Your task to perform on an android device: Open Google Maps and go to "Timeline" Image 0: 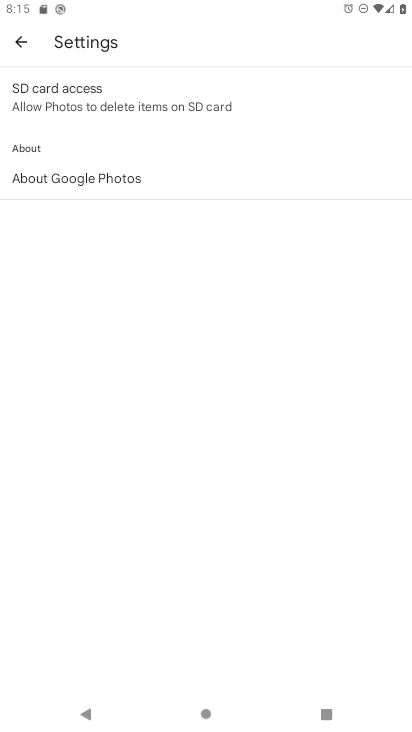
Step 0: press home button
Your task to perform on an android device: Open Google Maps and go to "Timeline" Image 1: 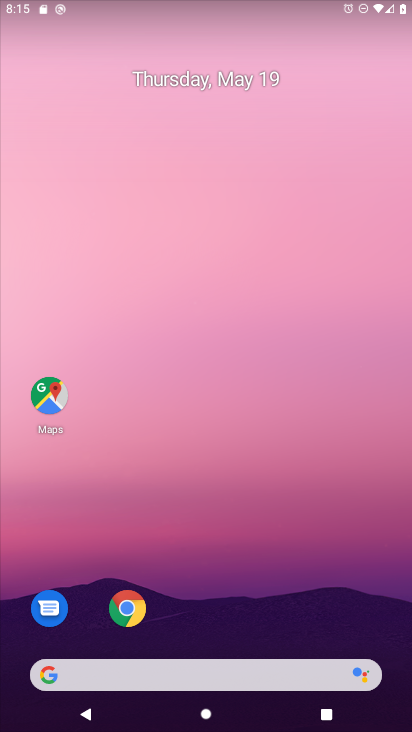
Step 1: drag from (395, 639) to (364, 74)
Your task to perform on an android device: Open Google Maps and go to "Timeline" Image 2: 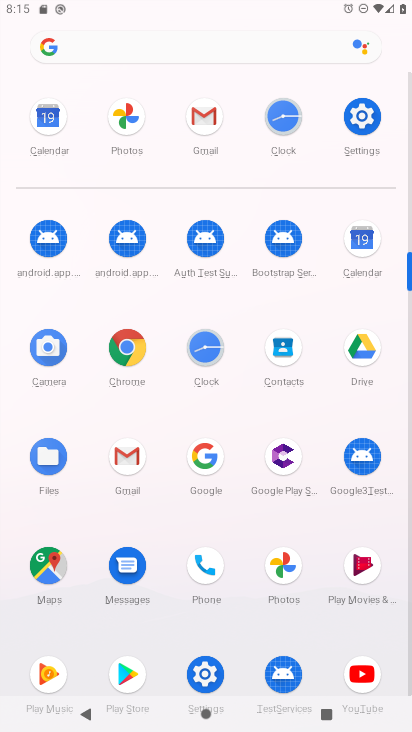
Step 2: click (42, 550)
Your task to perform on an android device: Open Google Maps and go to "Timeline" Image 3: 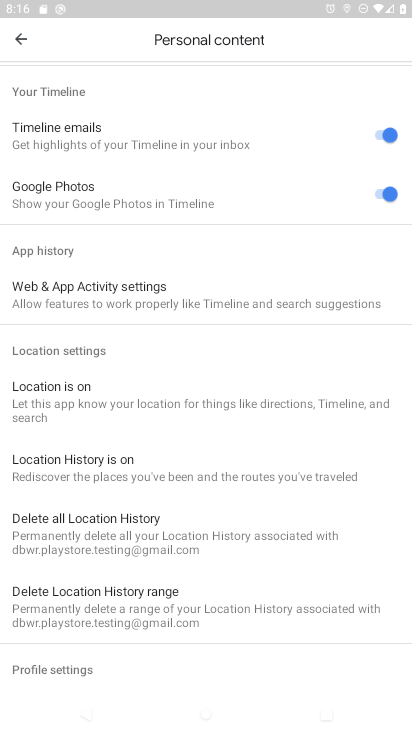
Step 3: task complete